Your task to perform on an android device: Go to Maps Image 0: 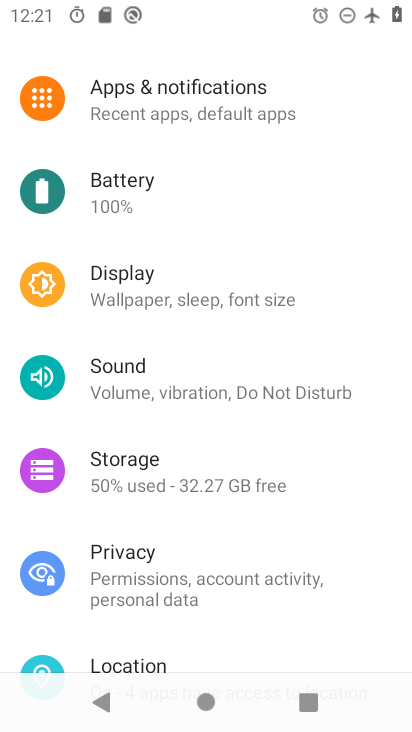
Step 0: press home button
Your task to perform on an android device: Go to Maps Image 1: 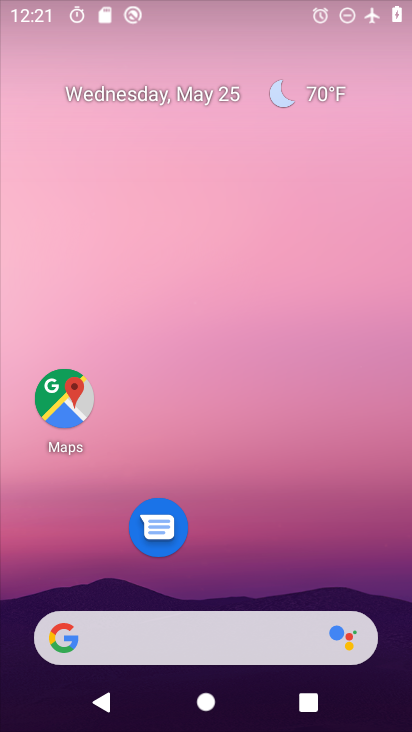
Step 1: click (258, 567)
Your task to perform on an android device: Go to Maps Image 2: 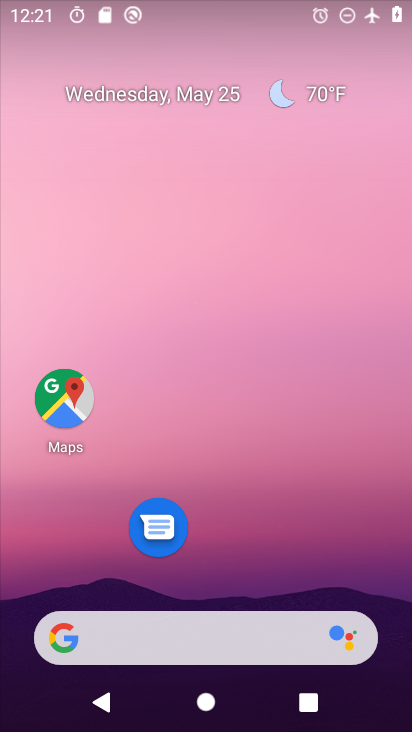
Step 2: click (63, 404)
Your task to perform on an android device: Go to Maps Image 3: 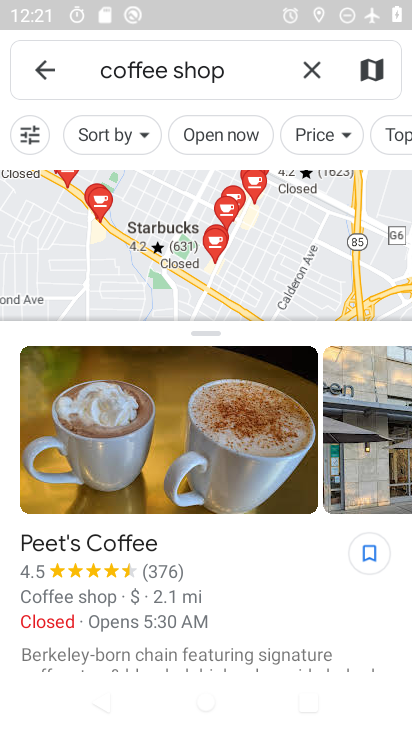
Step 3: task complete